Your task to perform on an android device: toggle airplane mode Image 0: 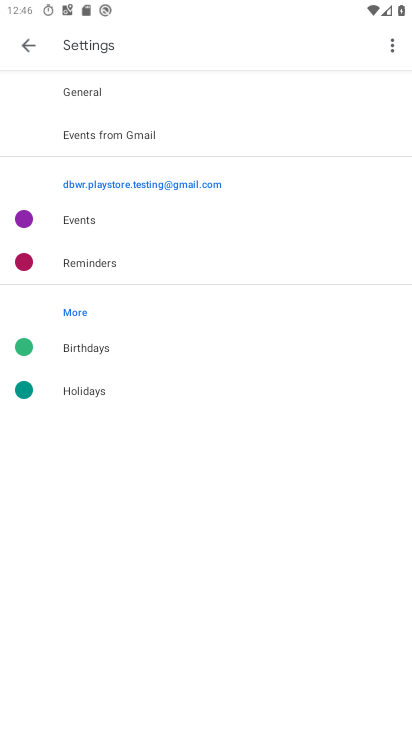
Step 0: press home button
Your task to perform on an android device: toggle airplane mode Image 1: 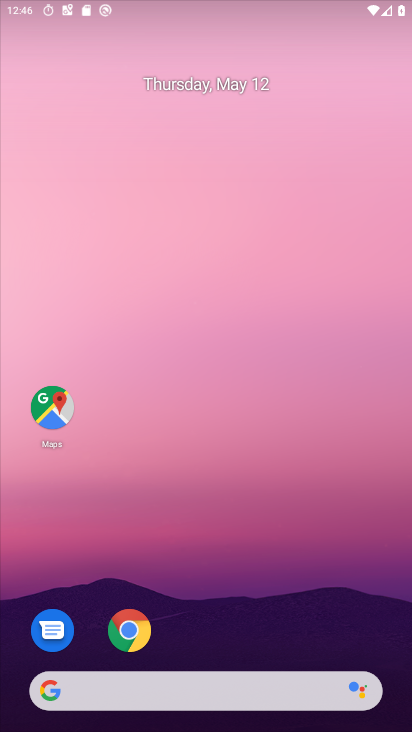
Step 1: drag from (268, 8) to (211, 500)
Your task to perform on an android device: toggle airplane mode Image 2: 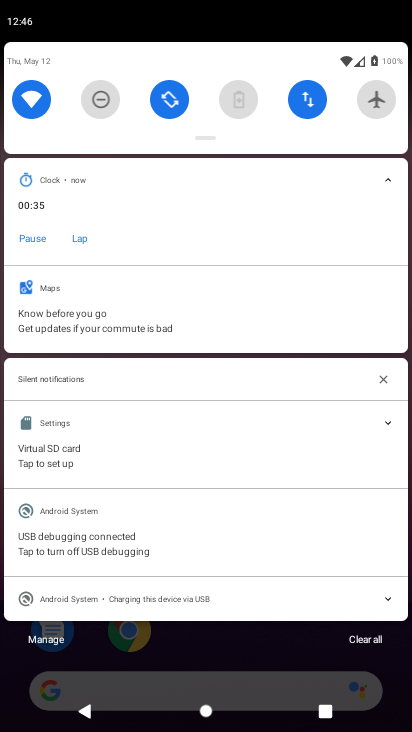
Step 2: click (382, 102)
Your task to perform on an android device: toggle airplane mode Image 3: 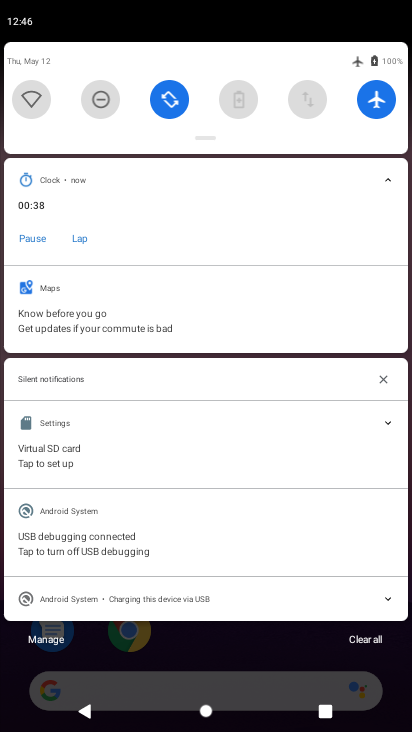
Step 3: task complete